Your task to perform on an android device: Go to location settings Image 0: 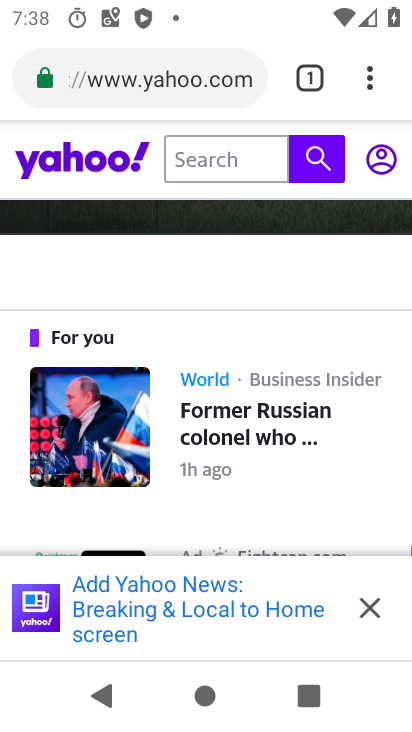
Step 0: press home button
Your task to perform on an android device: Go to location settings Image 1: 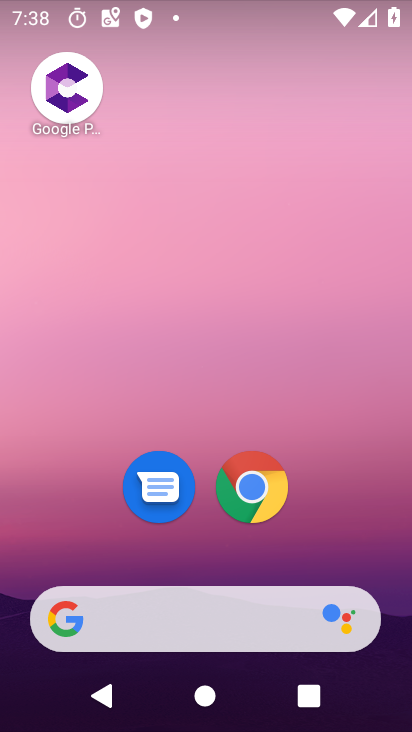
Step 1: drag from (188, 609) to (332, 82)
Your task to perform on an android device: Go to location settings Image 2: 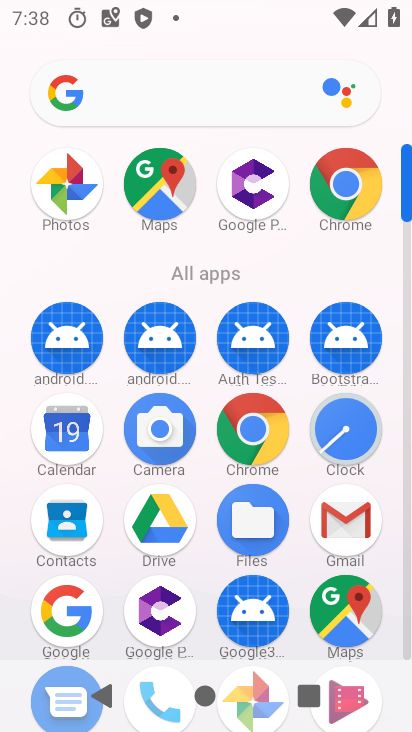
Step 2: drag from (201, 589) to (341, 138)
Your task to perform on an android device: Go to location settings Image 3: 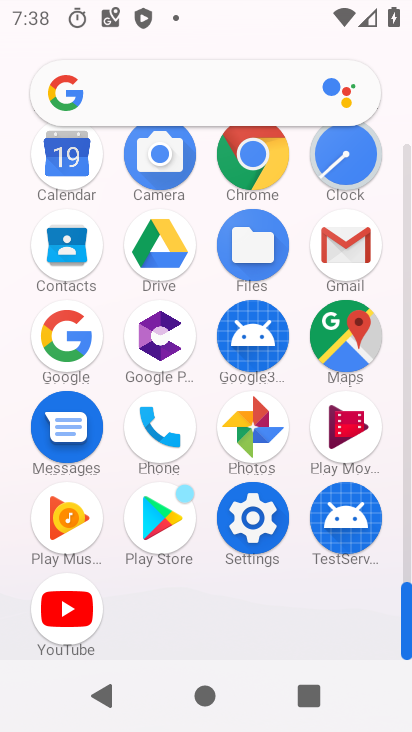
Step 3: click (247, 528)
Your task to perform on an android device: Go to location settings Image 4: 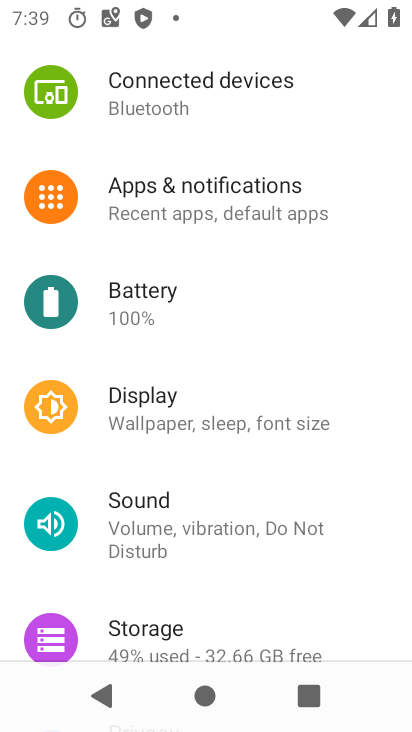
Step 4: drag from (279, 312) to (221, 598)
Your task to perform on an android device: Go to location settings Image 5: 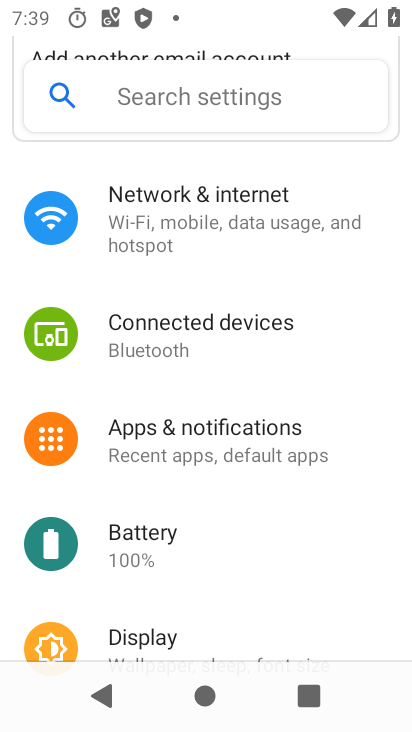
Step 5: drag from (264, 437) to (410, 115)
Your task to perform on an android device: Go to location settings Image 6: 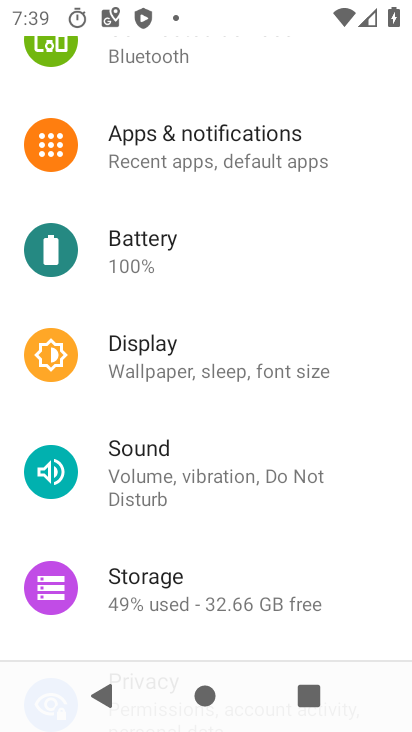
Step 6: drag from (218, 528) to (359, 111)
Your task to perform on an android device: Go to location settings Image 7: 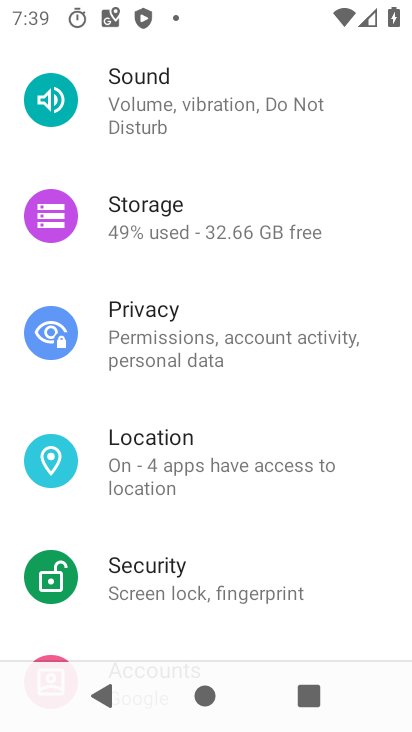
Step 7: click (158, 464)
Your task to perform on an android device: Go to location settings Image 8: 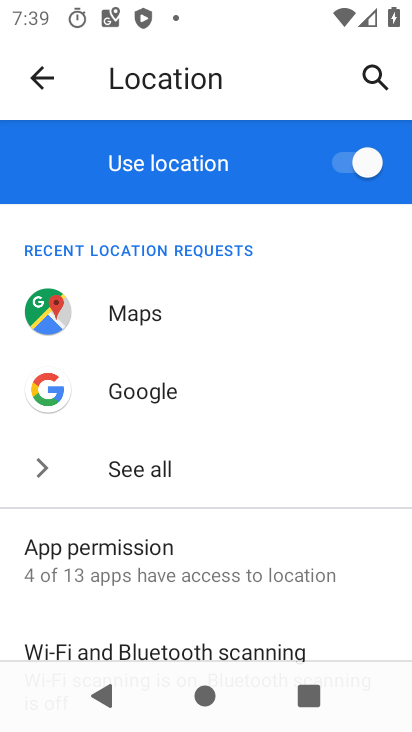
Step 8: task complete